Your task to perform on an android device: Open Google Chrome and open the bookmarks view Image 0: 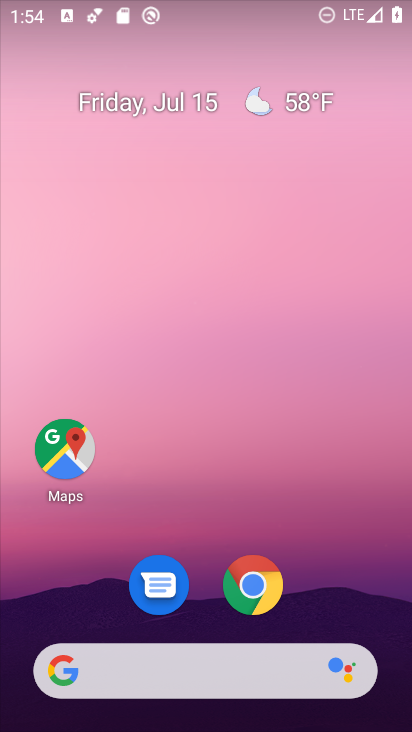
Step 0: click (249, 580)
Your task to perform on an android device: Open Google Chrome and open the bookmarks view Image 1: 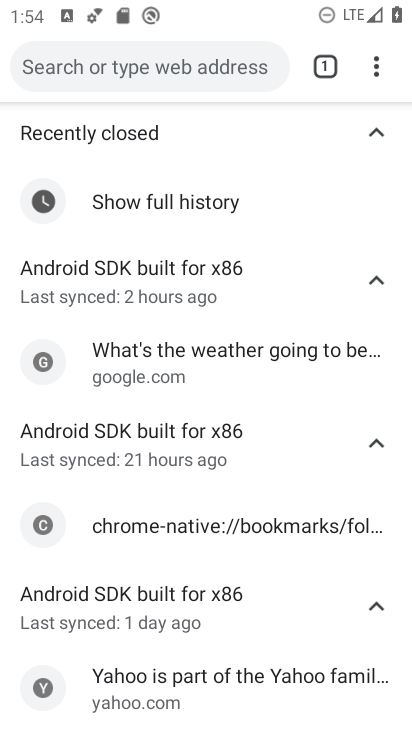
Step 1: click (374, 67)
Your task to perform on an android device: Open Google Chrome and open the bookmarks view Image 2: 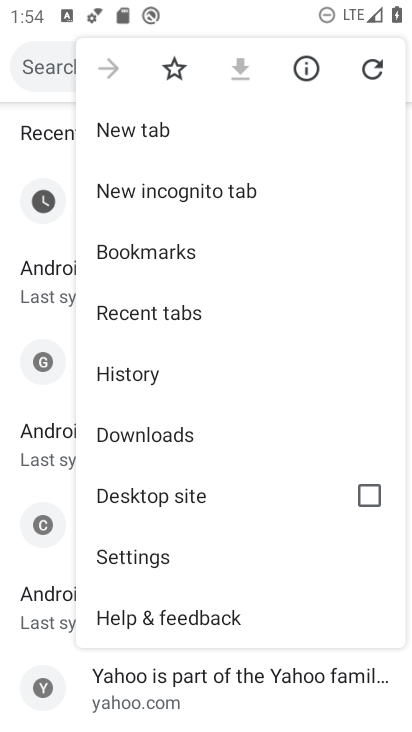
Step 2: click (184, 253)
Your task to perform on an android device: Open Google Chrome and open the bookmarks view Image 3: 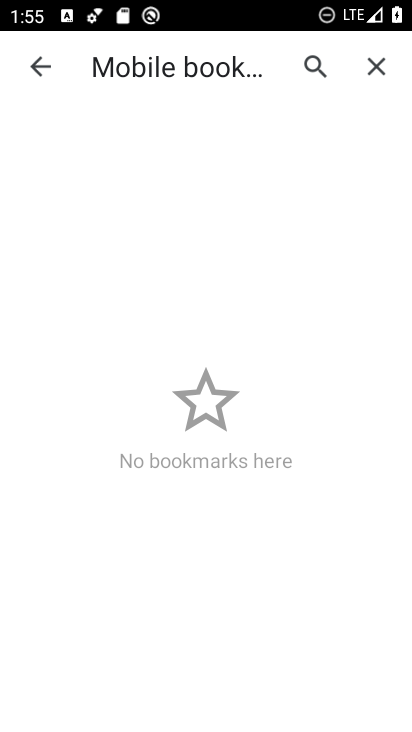
Step 3: task complete